Your task to perform on an android device: toggle location history Image 0: 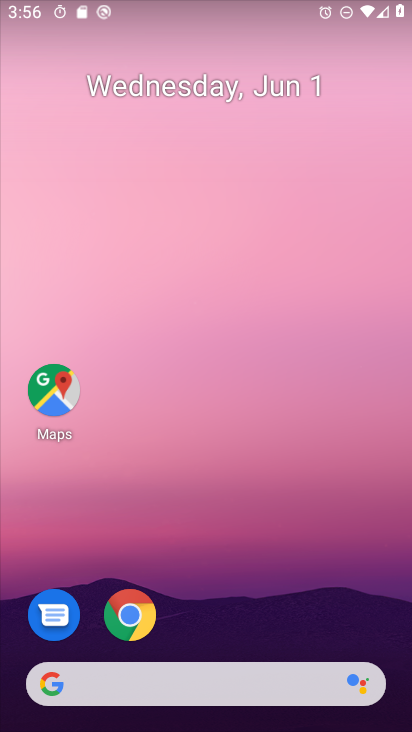
Step 0: drag from (279, 654) to (292, 35)
Your task to perform on an android device: toggle location history Image 1: 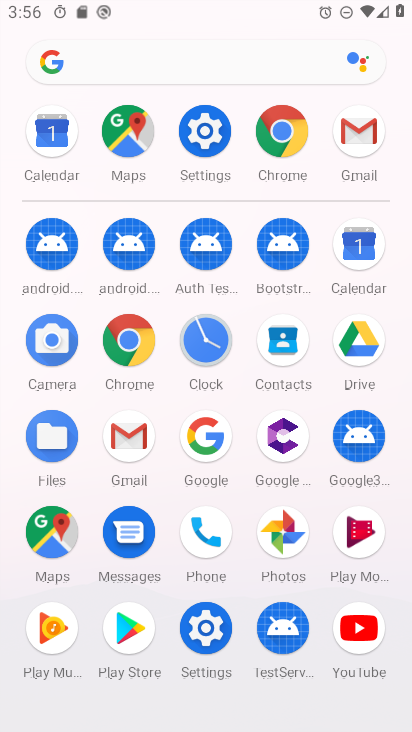
Step 1: click (200, 146)
Your task to perform on an android device: toggle location history Image 2: 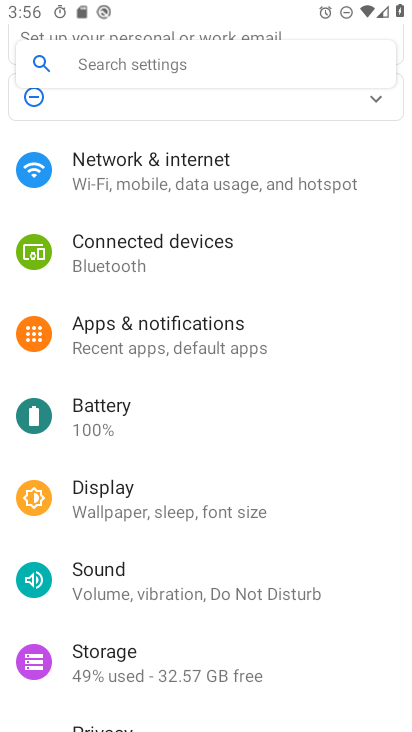
Step 2: drag from (95, 636) to (185, 143)
Your task to perform on an android device: toggle location history Image 3: 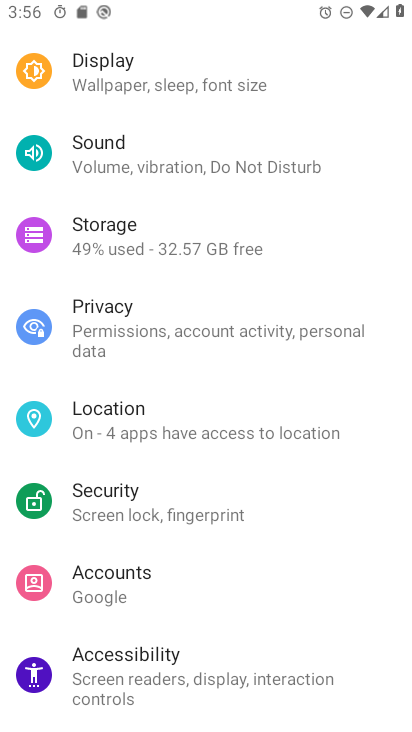
Step 3: click (162, 433)
Your task to perform on an android device: toggle location history Image 4: 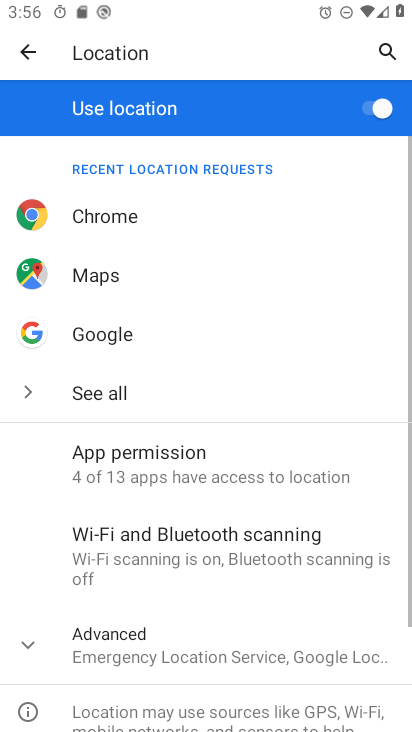
Step 4: drag from (198, 598) to (226, 184)
Your task to perform on an android device: toggle location history Image 5: 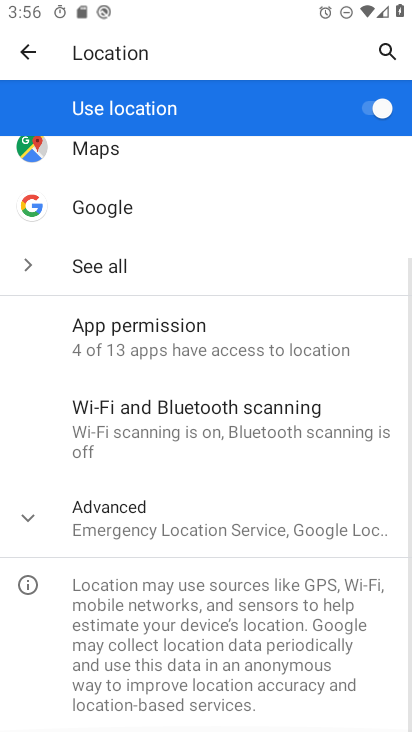
Step 5: click (109, 525)
Your task to perform on an android device: toggle location history Image 6: 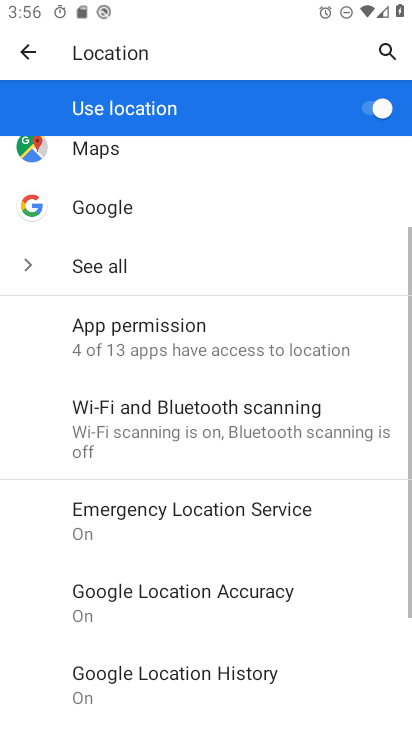
Step 6: drag from (146, 650) to (193, 312)
Your task to perform on an android device: toggle location history Image 7: 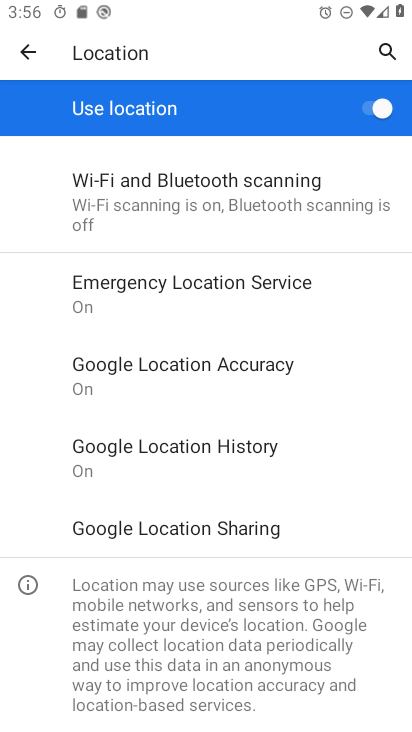
Step 7: click (192, 459)
Your task to perform on an android device: toggle location history Image 8: 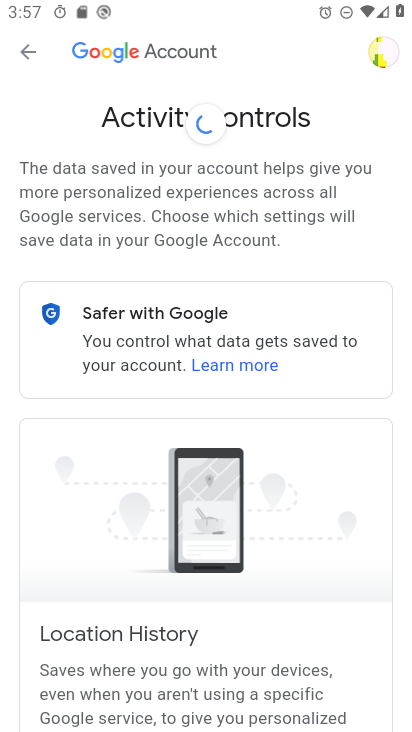
Step 8: drag from (111, 588) to (165, 86)
Your task to perform on an android device: toggle location history Image 9: 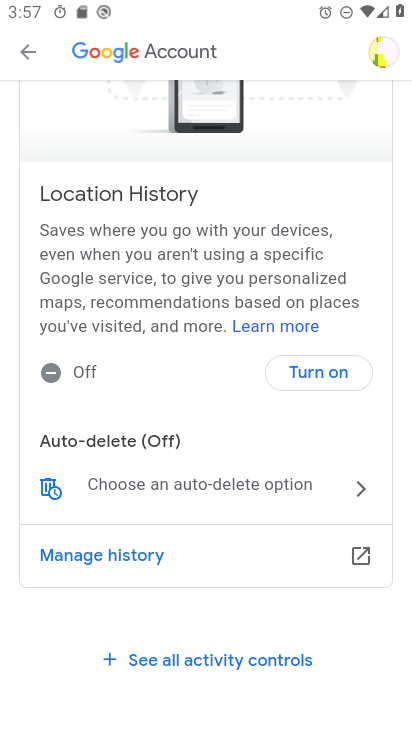
Step 9: click (318, 365)
Your task to perform on an android device: toggle location history Image 10: 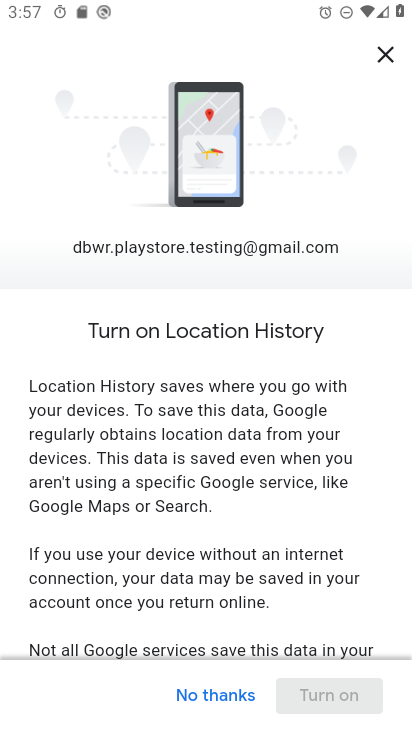
Step 10: drag from (265, 632) to (268, 69)
Your task to perform on an android device: toggle location history Image 11: 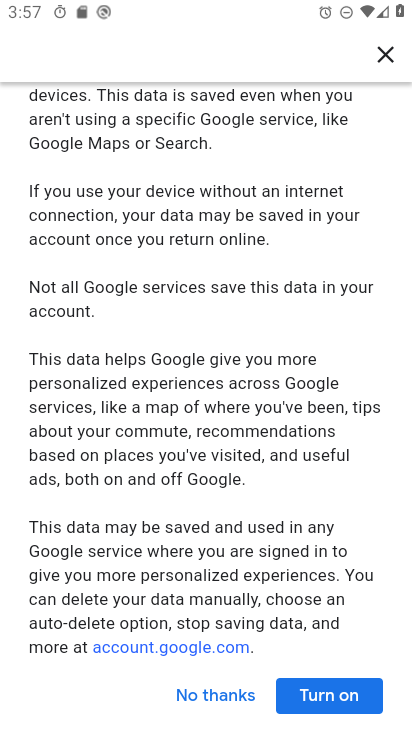
Step 11: click (306, 689)
Your task to perform on an android device: toggle location history Image 12: 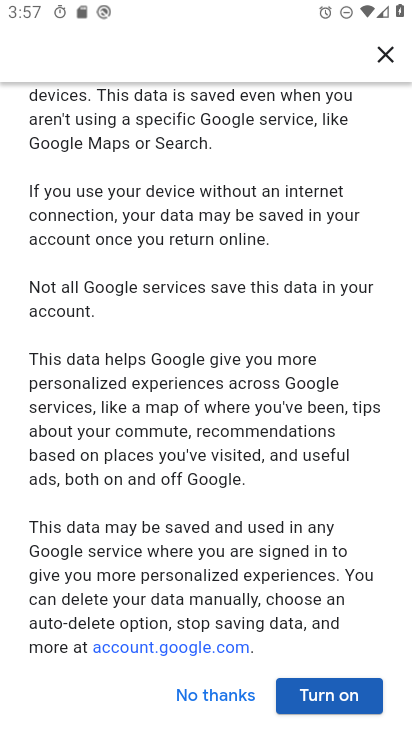
Step 12: click (311, 701)
Your task to perform on an android device: toggle location history Image 13: 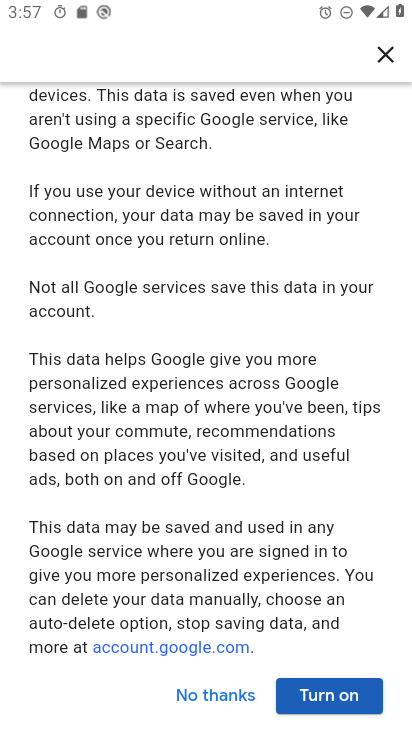
Step 13: click (311, 701)
Your task to perform on an android device: toggle location history Image 14: 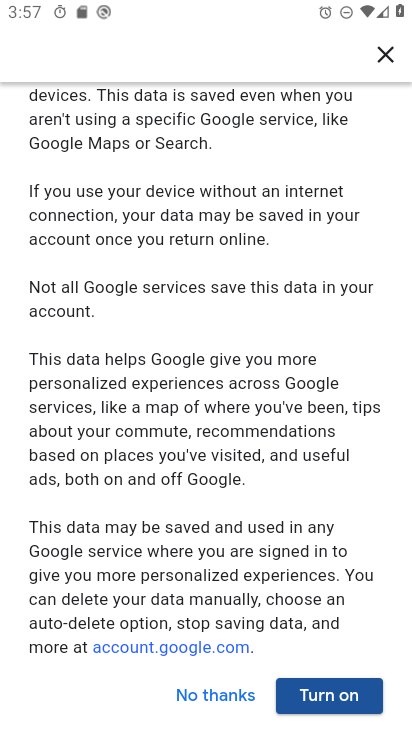
Step 14: click (311, 701)
Your task to perform on an android device: toggle location history Image 15: 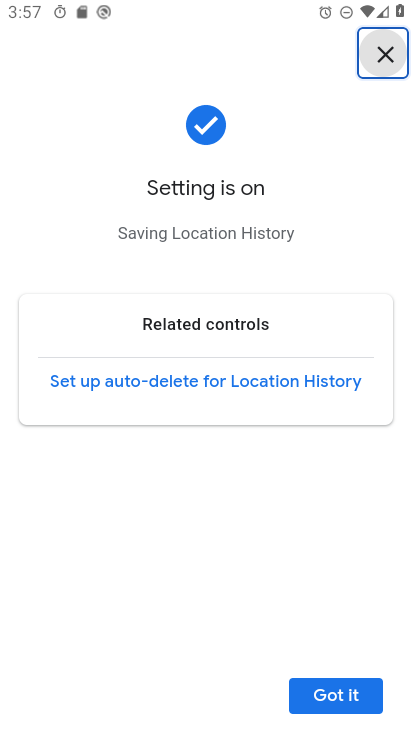
Step 15: task complete